Your task to perform on an android device: check google app version Image 0: 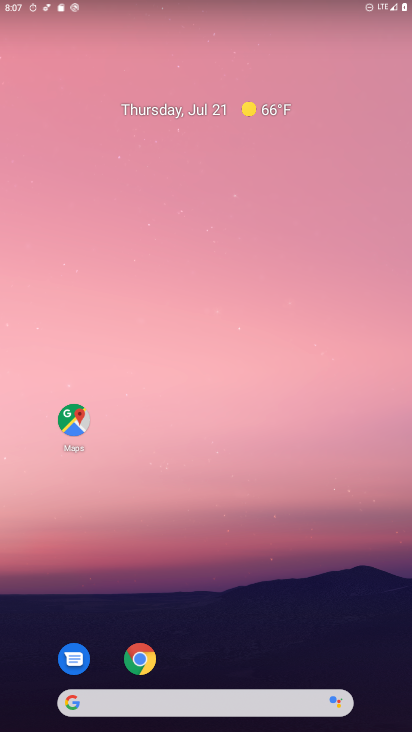
Step 0: click (410, 597)
Your task to perform on an android device: check google app version Image 1: 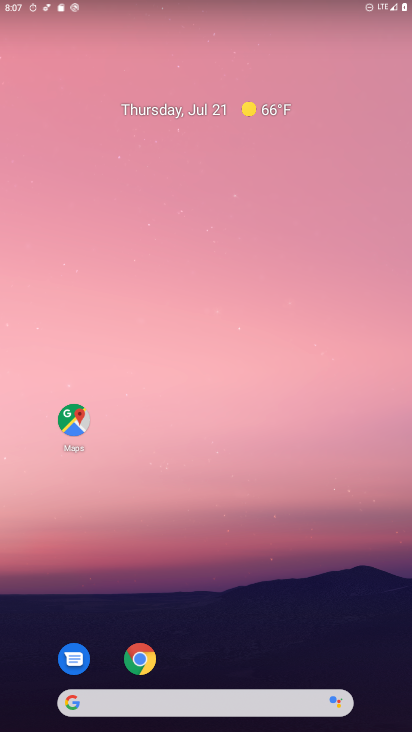
Step 1: drag from (203, 667) to (281, 106)
Your task to perform on an android device: check google app version Image 2: 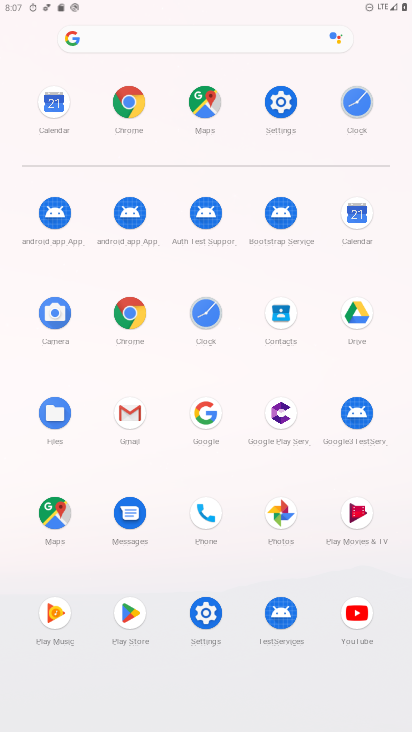
Step 2: click (204, 610)
Your task to perform on an android device: check google app version Image 3: 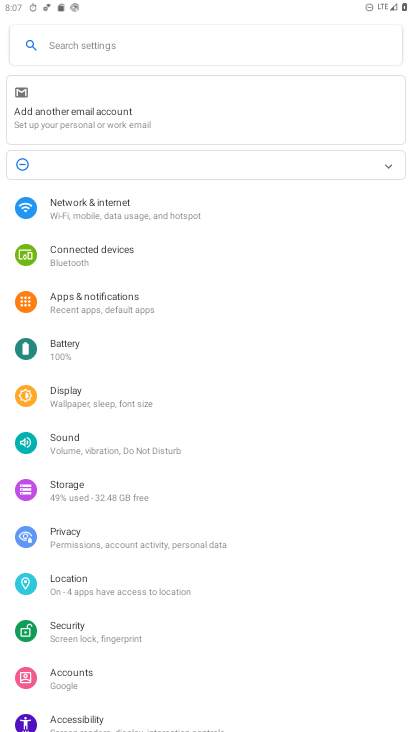
Step 3: drag from (155, 617) to (237, 172)
Your task to perform on an android device: check google app version Image 4: 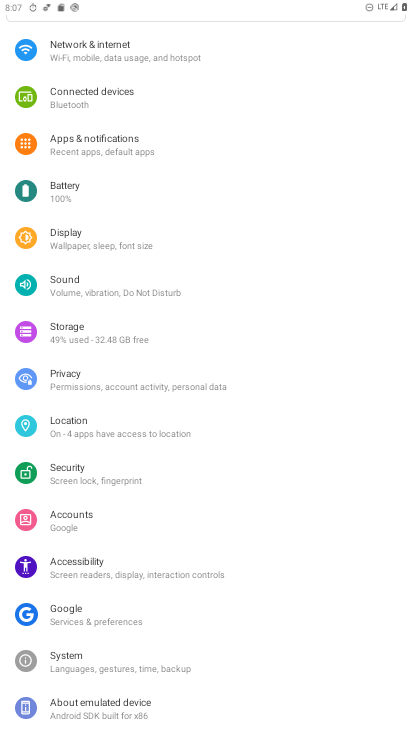
Step 4: press home button
Your task to perform on an android device: check google app version Image 5: 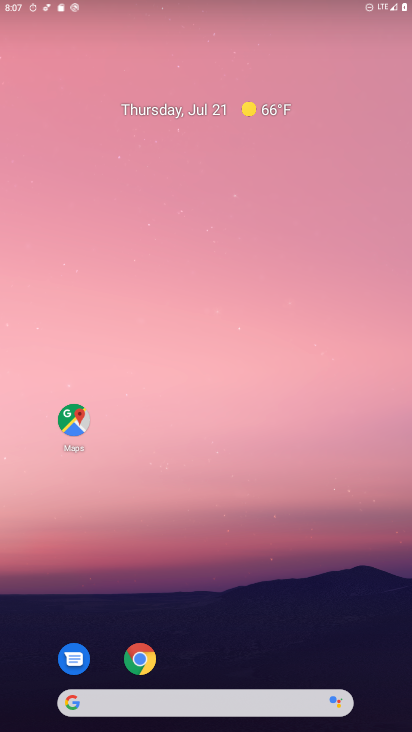
Step 5: drag from (201, 558) to (276, 0)
Your task to perform on an android device: check google app version Image 6: 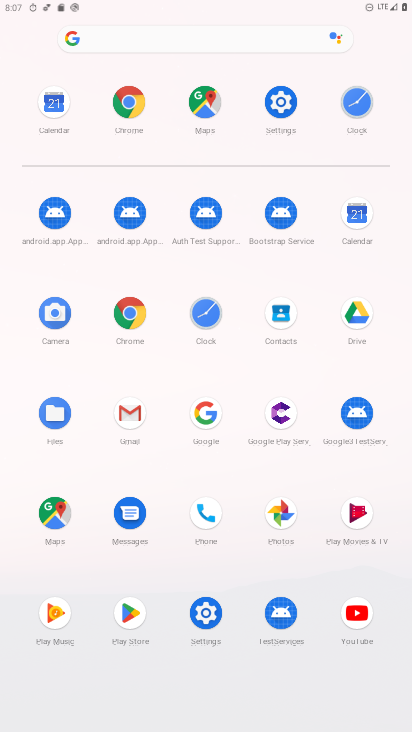
Step 6: click (201, 417)
Your task to perform on an android device: check google app version Image 7: 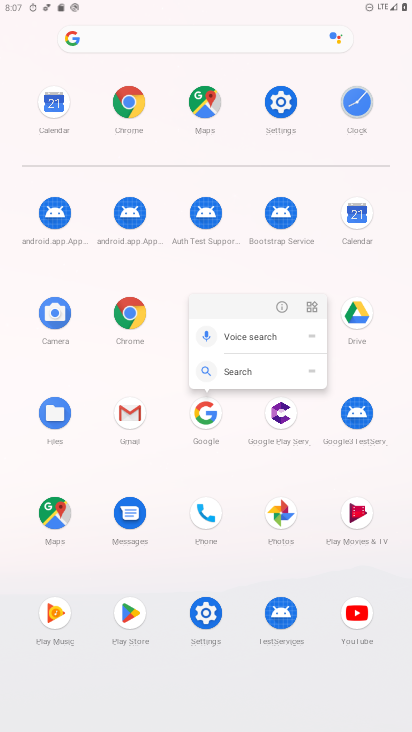
Step 7: click (277, 307)
Your task to perform on an android device: check google app version Image 8: 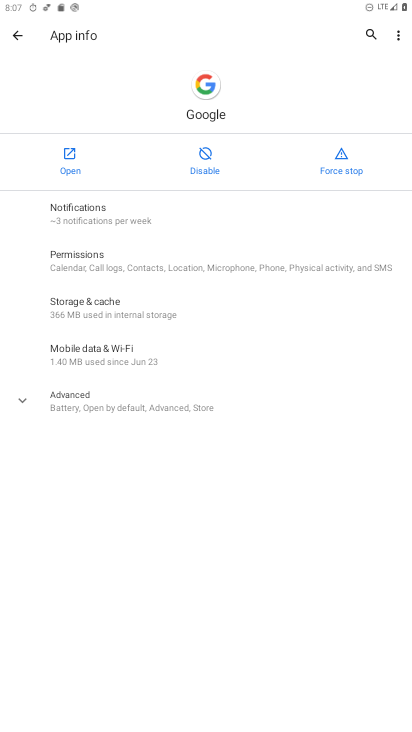
Step 8: click (52, 149)
Your task to perform on an android device: check google app version Image 9: 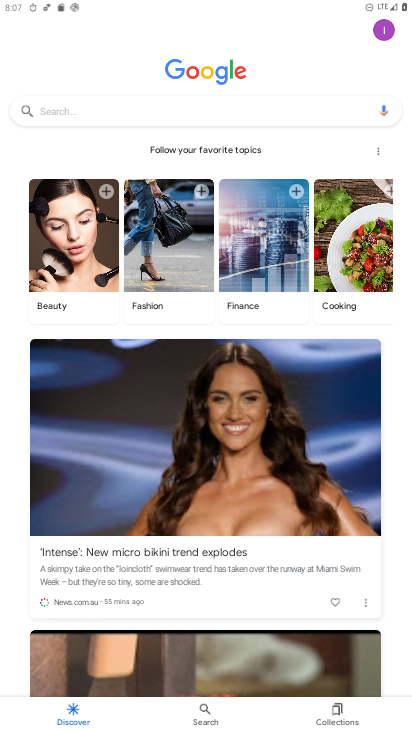
Step 9: click (380, 22)
Your task to perform on an android device: check google app version Image 10: 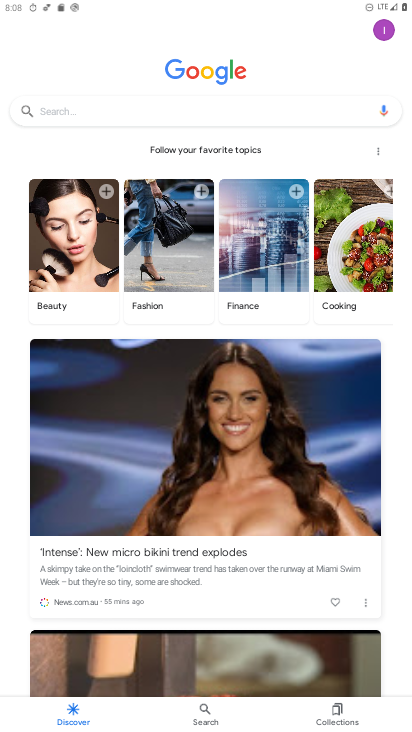
Step 10: drag from (388, 31) to (318, 417)
Your task to perform on an android device: check google app version Image 11: 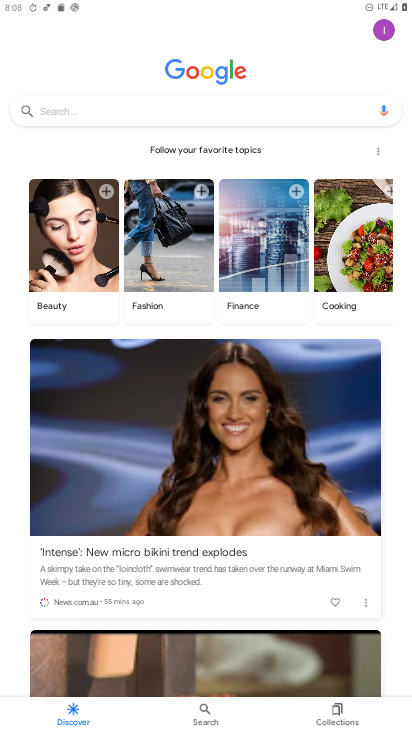
Step 11: click (378, 30)
Your task to perform on an android device: check google app version Image 12: 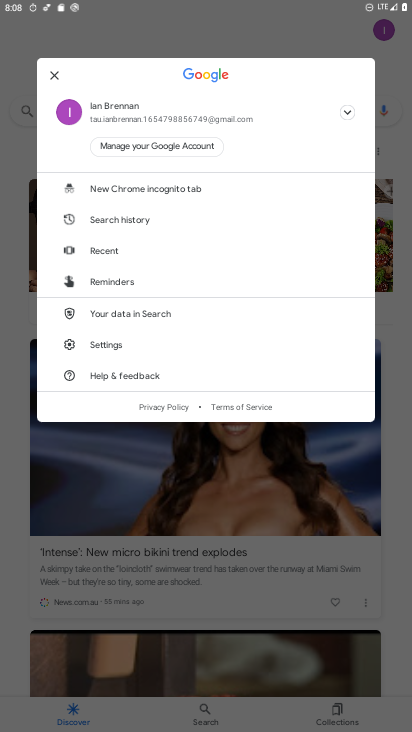
Step 12: click (106, 344)
Your task to perform on an android device: check google app version Image 13: 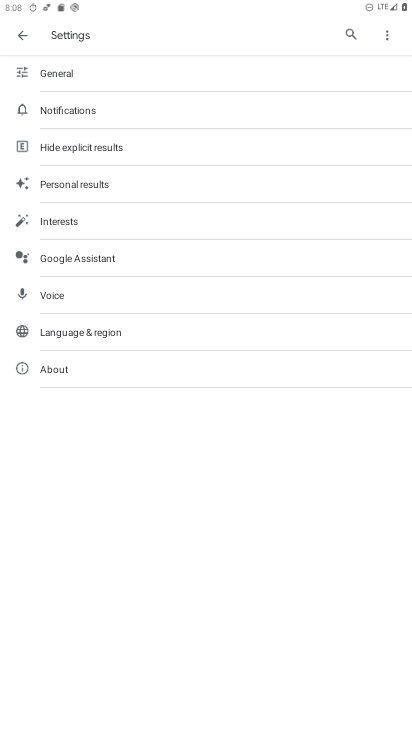
Step 13: click (79, 373)
Your task to perform on an android device: check google app version Image 14: 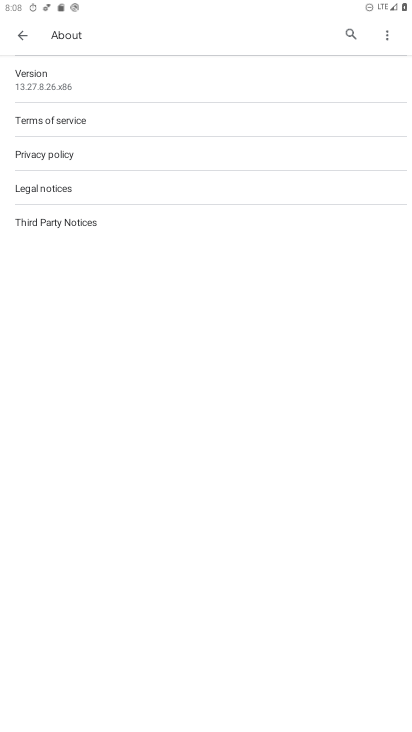
Step 14: click (23, 72)
Your task to perform on an android device: check google app version Image 15: 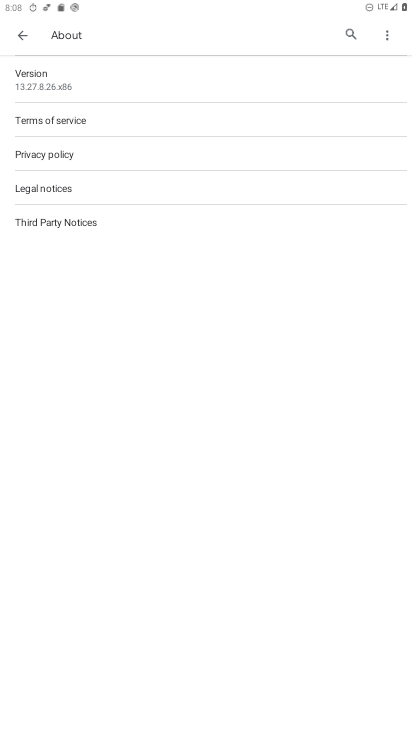
Step 15: click (76, 86)
Your task to perform on an android device: check google app version Image 16: 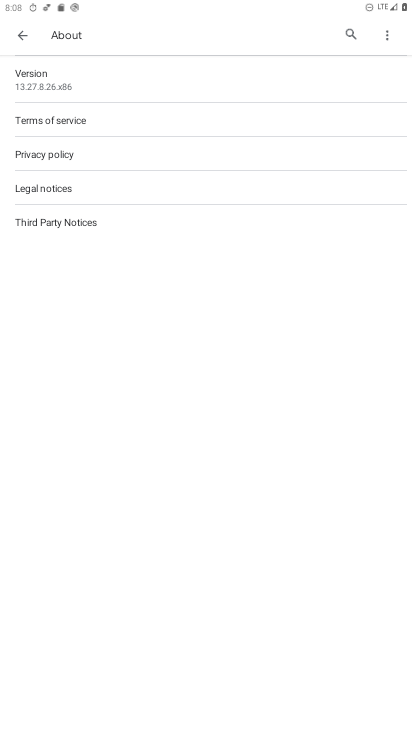
Step 16: task complete